Your task to perform on an android device: Go to Reddit.com Image 0: 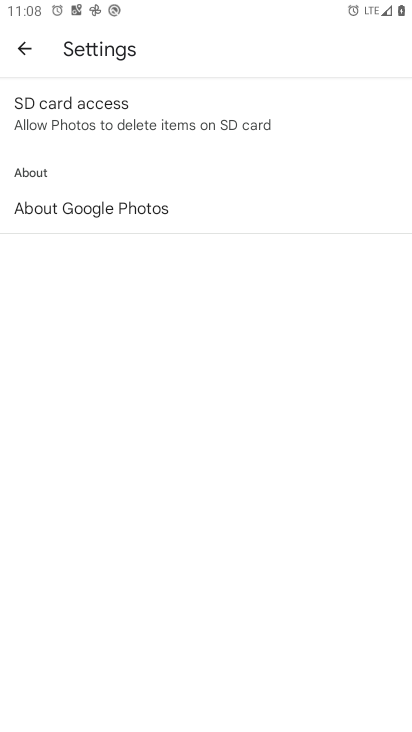
Step 0: press home button
Your task to perform on an android device: Go to Reddit.com Image 1: 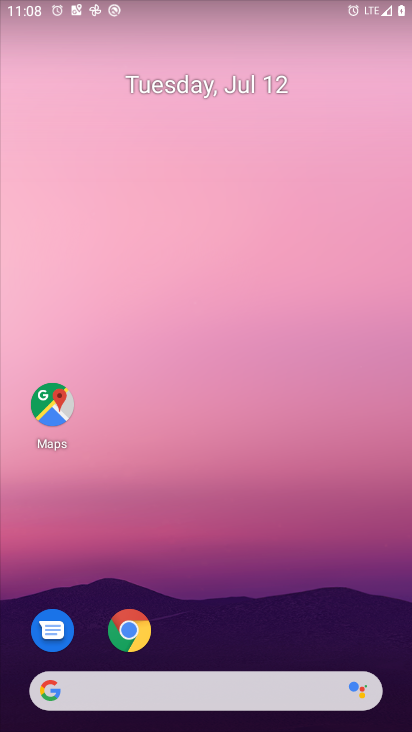
Step 1: click (170, 687)
Your task to perform on an android device: Go to Reddit.com Image 2: 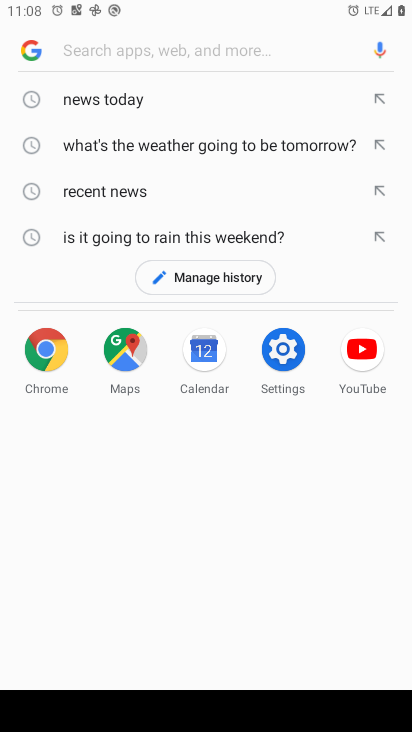
Step 2: click (126, 51)
Your task to perform on an android device: Go to Reddit.com Image 3: 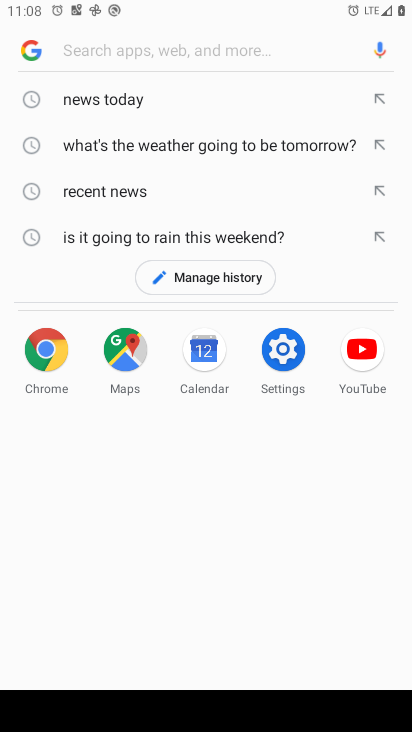
Step 3: type "Reddit.com"
Your task to perform on an android device: Go to Reddit.com Image 4: 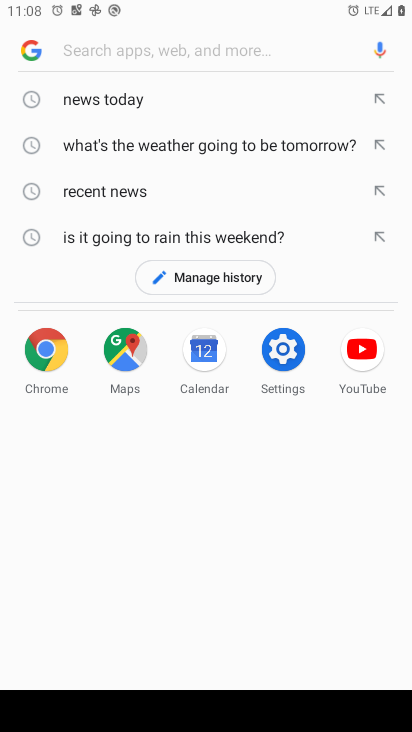
Step 4: click (126, 51)
Your task to perform on an android device: Go to Reddit.com Image 5: 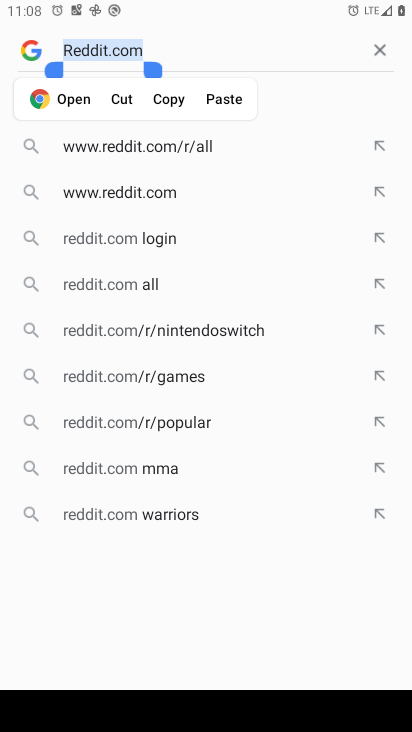
Step 5: press enter
Your task to perform on an android device: Go to Reddit.com Image 6: 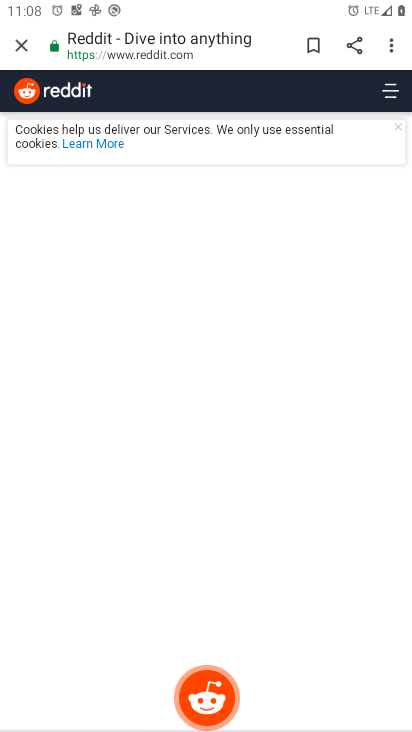
Step 6: task complete